Your task to perform on an android device: change alarm snooze length Image 0: 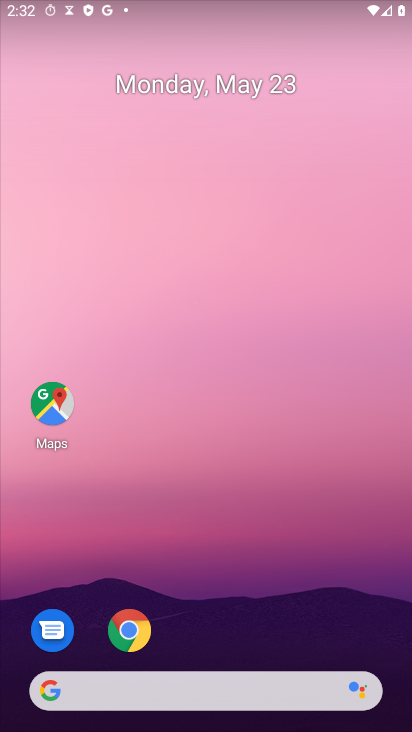
Step 0: drag from (268, 531) to (380, 43)
Your task to perform on an android device: change alarm snooze length Image 1: 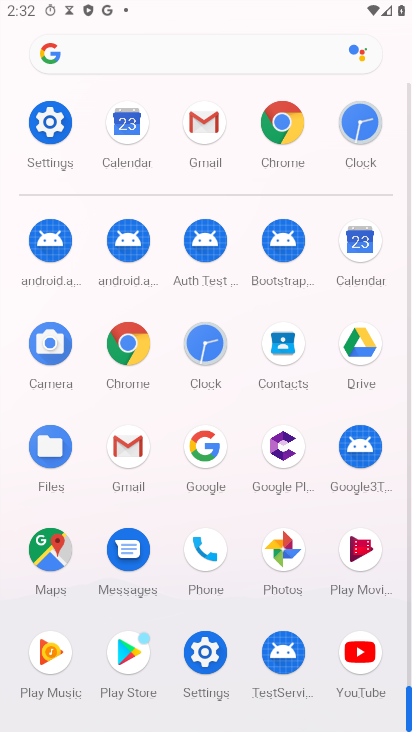
Step 1: click (347, 126)
Your task to perform on an android device: change alarm snooze length Image 2: 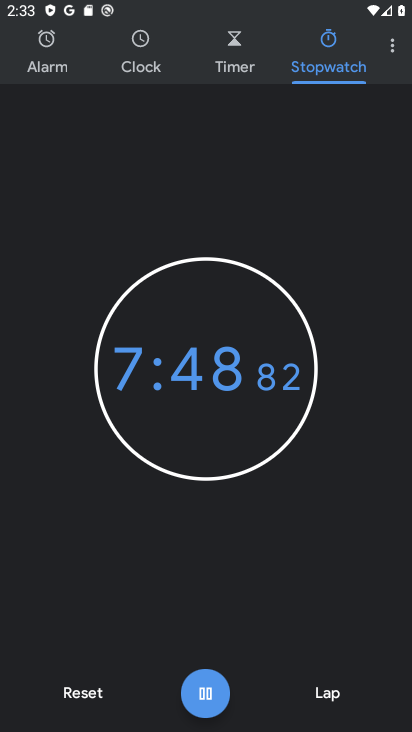
Step 2: click (392, 49)
Your task to perform on an android device: change alarm snooze length Image 3: 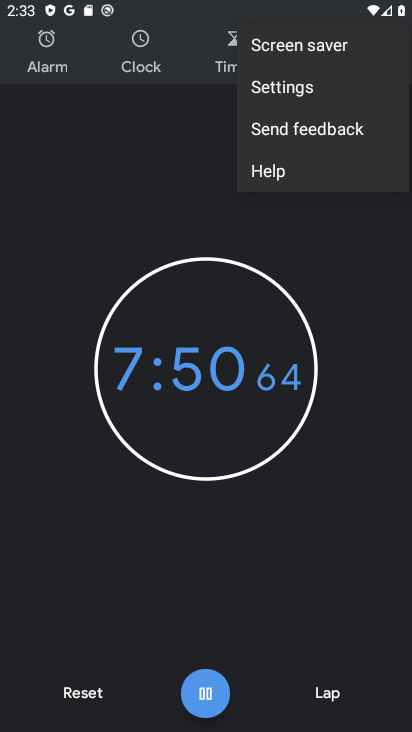
Step 3: click (314, 94)
Your task to perform on an android device: change alarm snooze length Image 4: 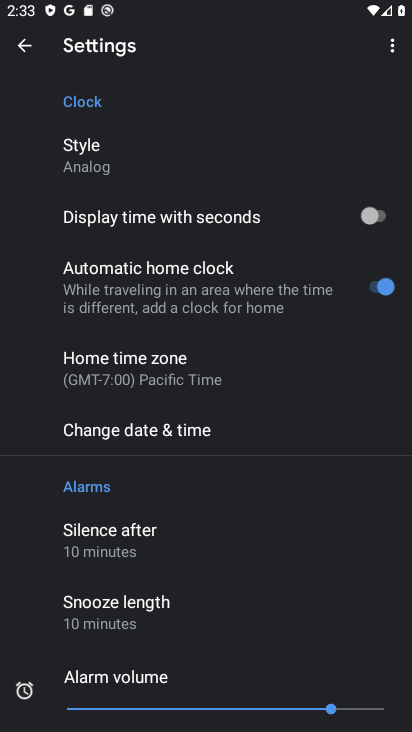
Step 4: drag from (181, 598) to (251, 220)
Your task to perform on an android device: change alarm snooze length Image 5: 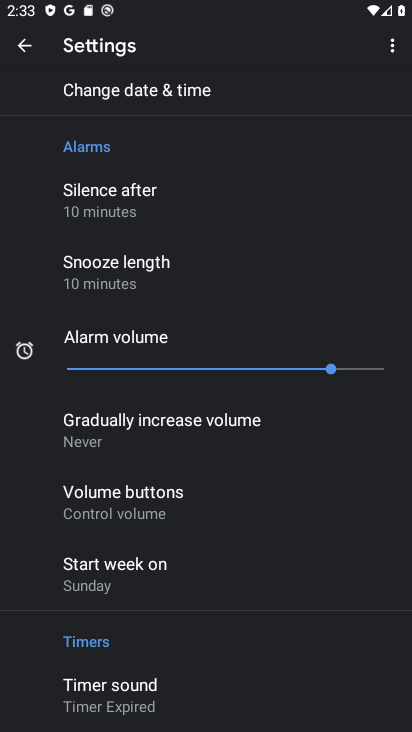
Step 5: click (130, 291)
Your task to perform on an android device: change alarm snooze length Image 6: 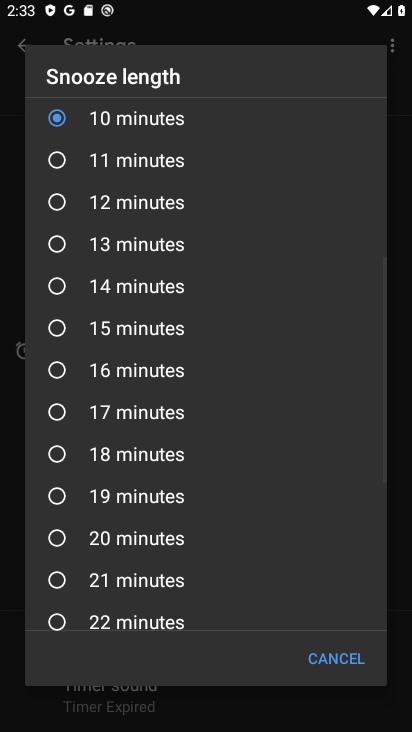
Step 6: click (149, 376)
Your task to perform on an android device: change alarm snooze length Image 7: 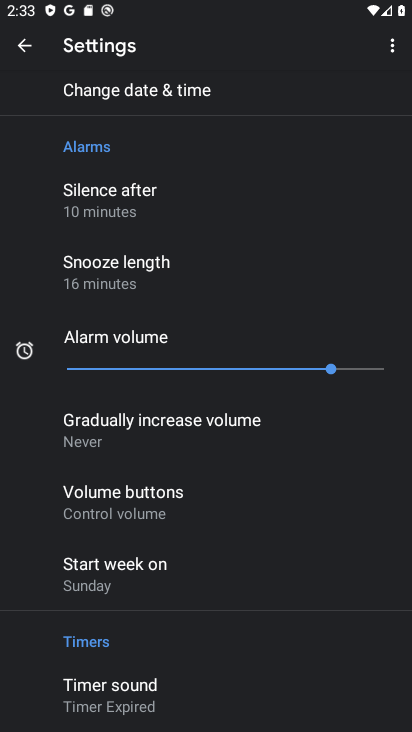
Step 7: click (124, 286)
Your task to perform on an android device: change alarm snooze length Image 8: 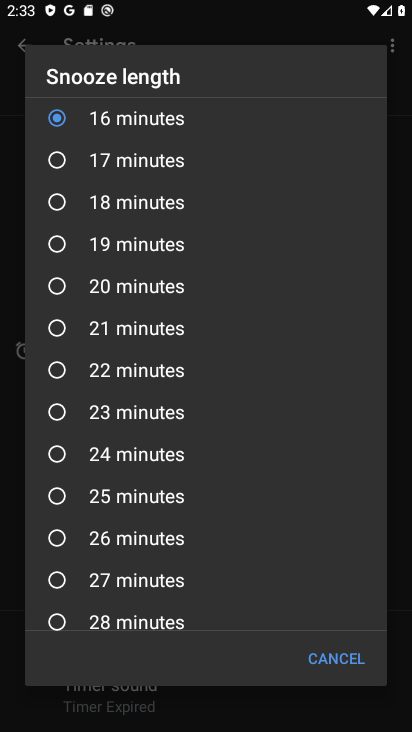
Step 8: task complete